Your task to perform on an android device: turn off sleep mode Image 0: 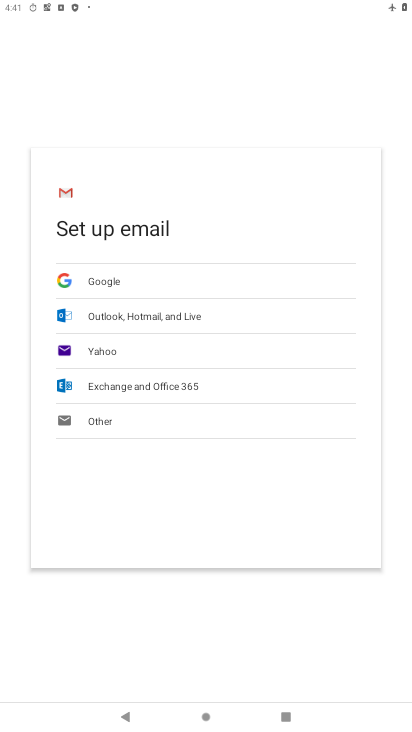
Step 0: press home button
Your task to perform on an android device: turn off sleep mode Image 1: 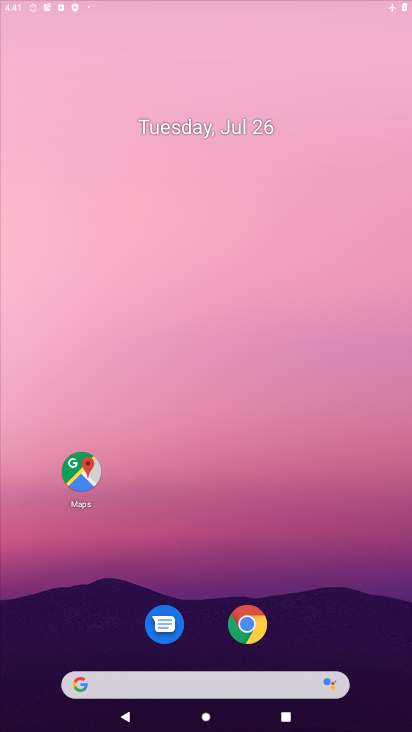
Step 1: drag from (259, 688) to (276, 53)
Your task to perform on an android device: turn off sleep mode Image 2: 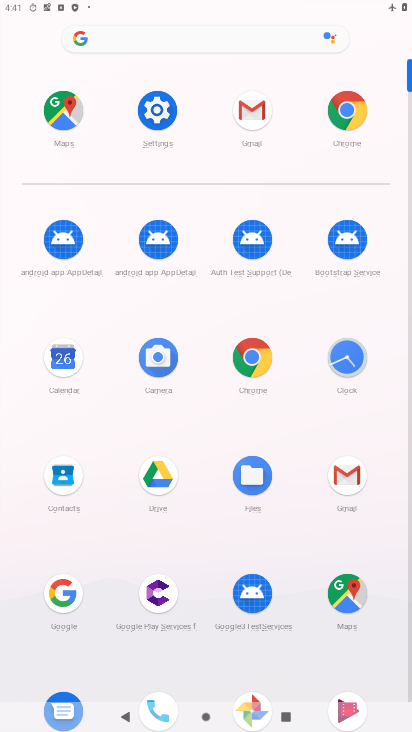
Step 2: click (164, 113)
Your task to perform on an android device: turn off sleep mode Image 3: 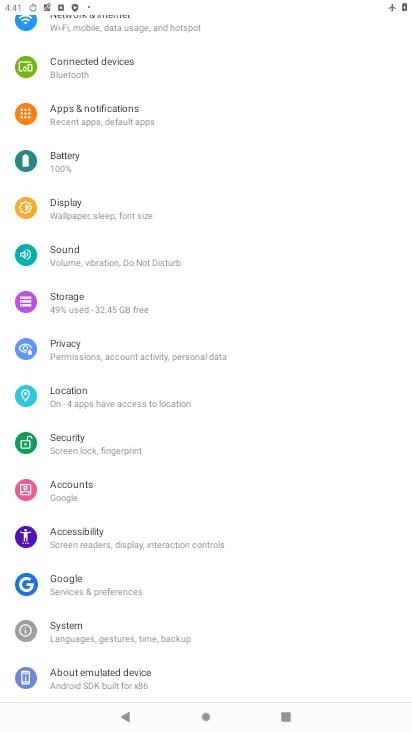
Step 3: drag from (233, 281) to (254, 608)
Your task to perform on an android device: turn off sleep mode Image 4: 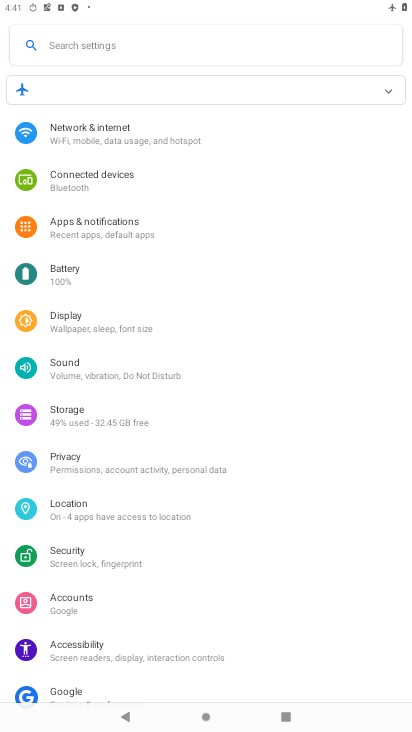
Step 4: drag from (209, 293) to (233, 494)
Your task to perform on an android device: turn off sleep mode Image 5: 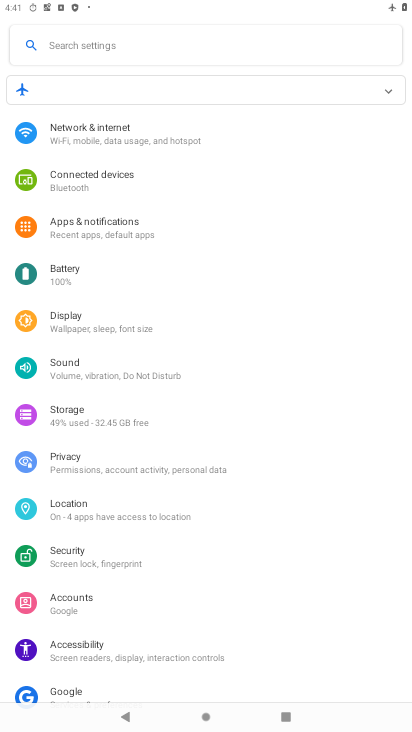
Step 5: click (98, 316)
Your task to perform on an android device: turn off sleep mode Image 6: 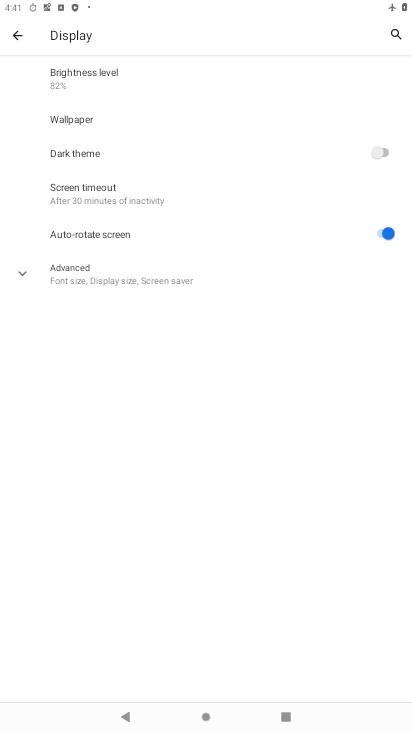
Step 6: task complete